Your task to perform on an android device: When is my next appointment? Image 0: 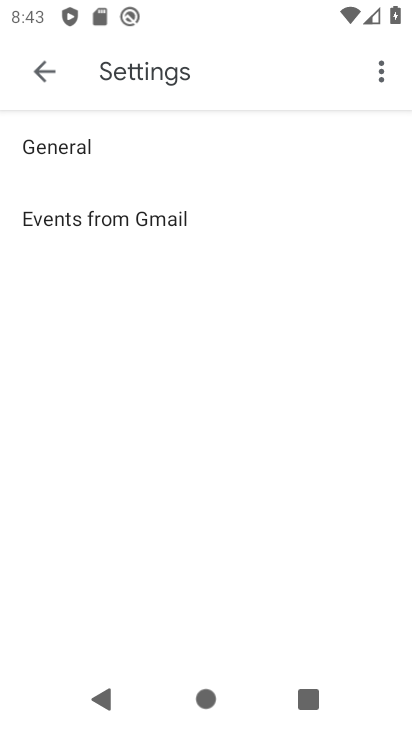
Step 0: press home button
Your task to perform on an android device: When is my next appointment? Image 1: 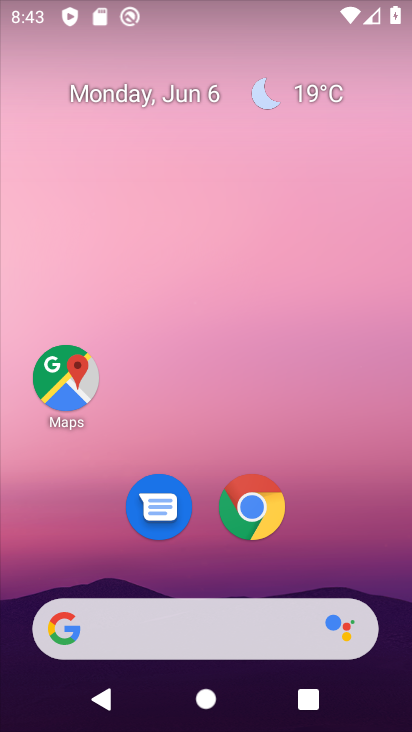
Step 1: drag from (296, 554) to (285, 110)
Your task to perform on an android device: When is my next appointment? Image 2: 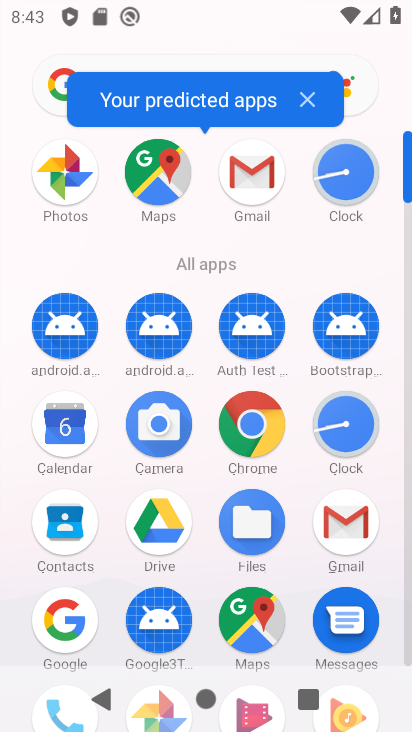
Step 2: click (64, 416)
Your task to perform on an android device: When is my next appointment? Image 3: 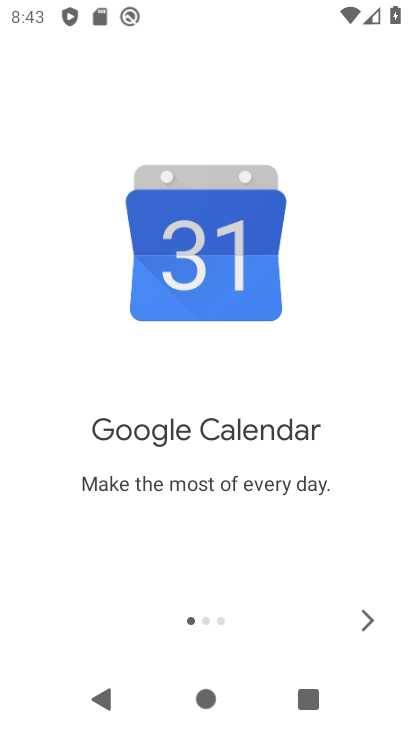
Step 3: click (351, 620)
Your task to perform on an android device: When is my next appointment? Image 4: 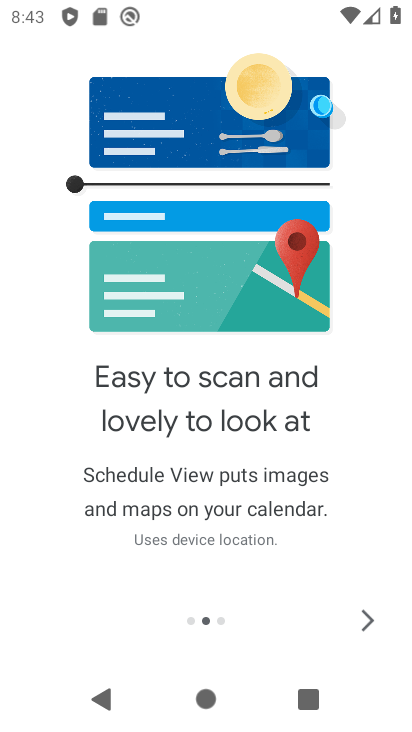
Step 4: click (352, 619)
Your task to perform on an android device: When is my next appointment? Image 5: 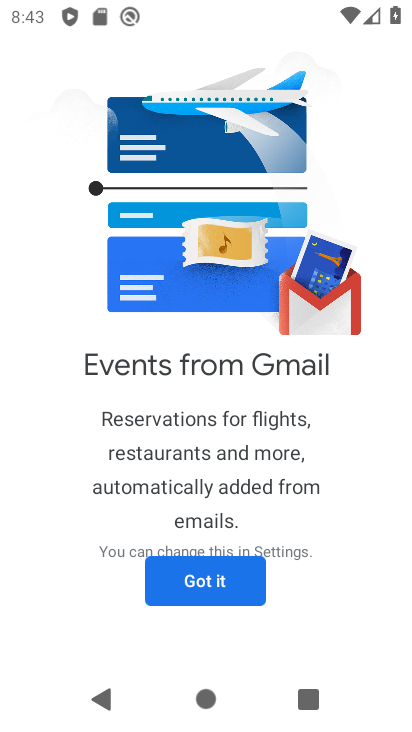
Step 5: click (234, 589)
Your task to perform on an android device: When is my next appointment? Image 6: 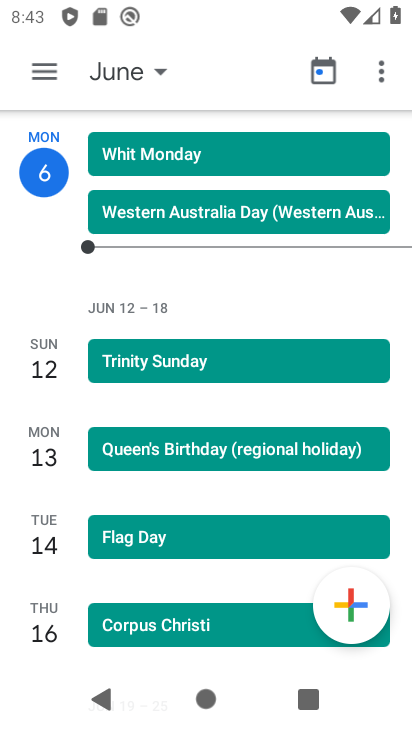
Step 6: click (48, 74)
Your task to perform on an android device: When is my next appointment? Image 7: 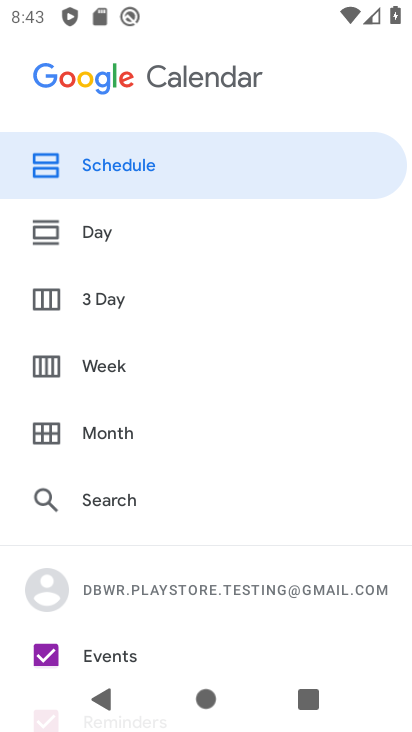
Step 7: click (103, 301)
Your task to perform on an android device: When is my next appointment? Image 8: 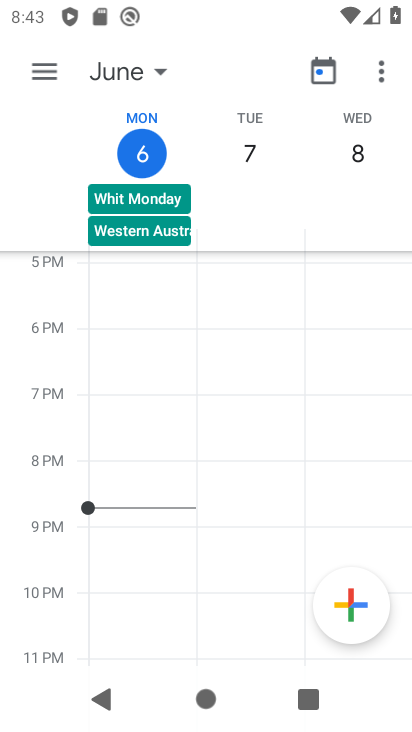
Step 8: click (368, 161)
Your task to perform on an android device: When is my next appointment? Image 9: 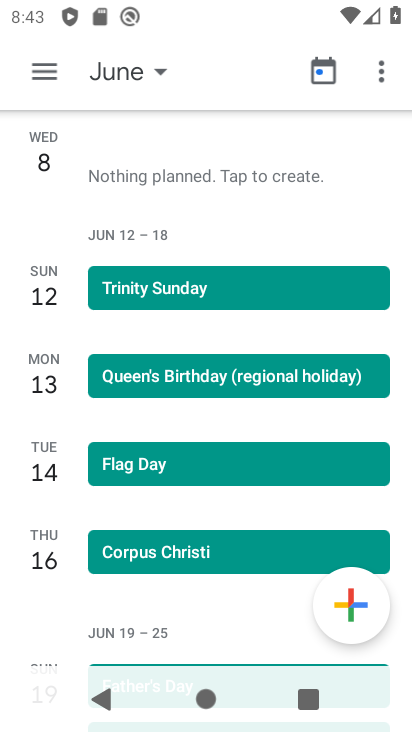
Step 9: task complete